Your task to perform on an android device: Open Reddit.com Image 0: 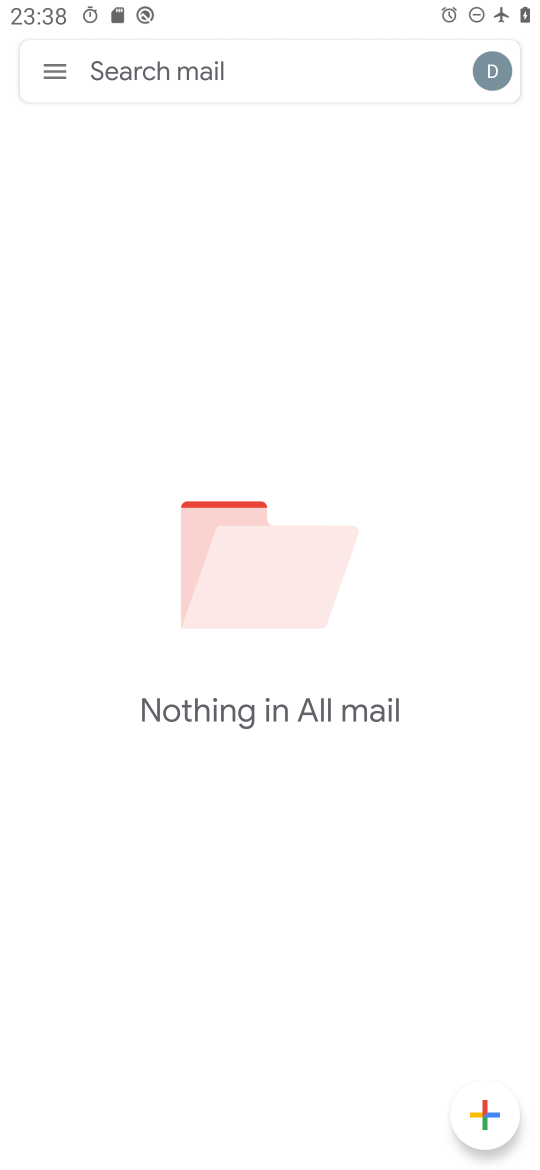
Step 0: press home button
Your task to perform on an android device: Open Reddit.com Image 1: 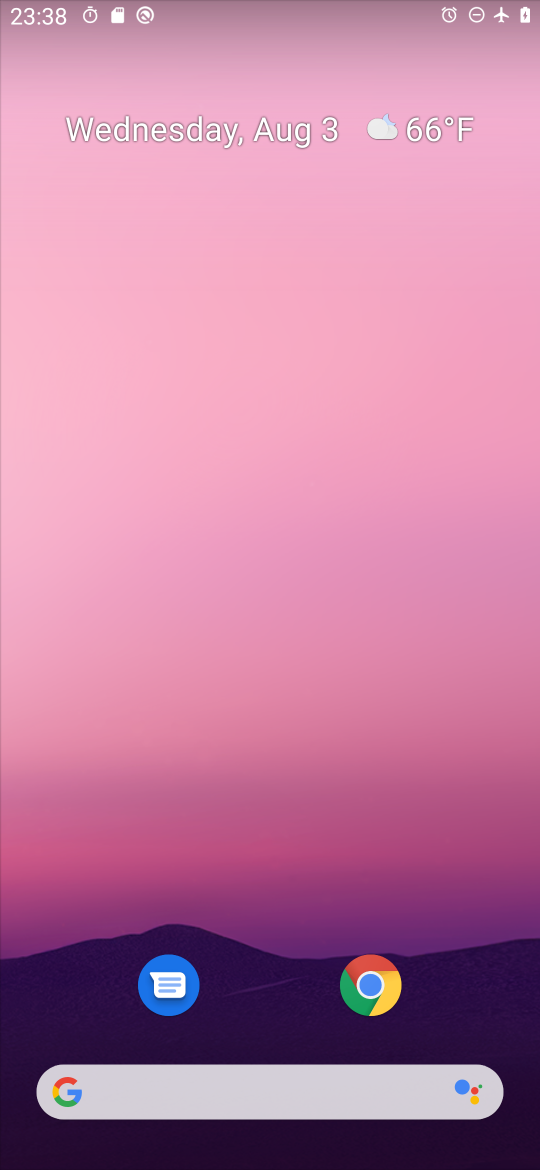
Step 1: click (372, 976)
Your task to perform on an android device: Open Reddit.com Image 2: 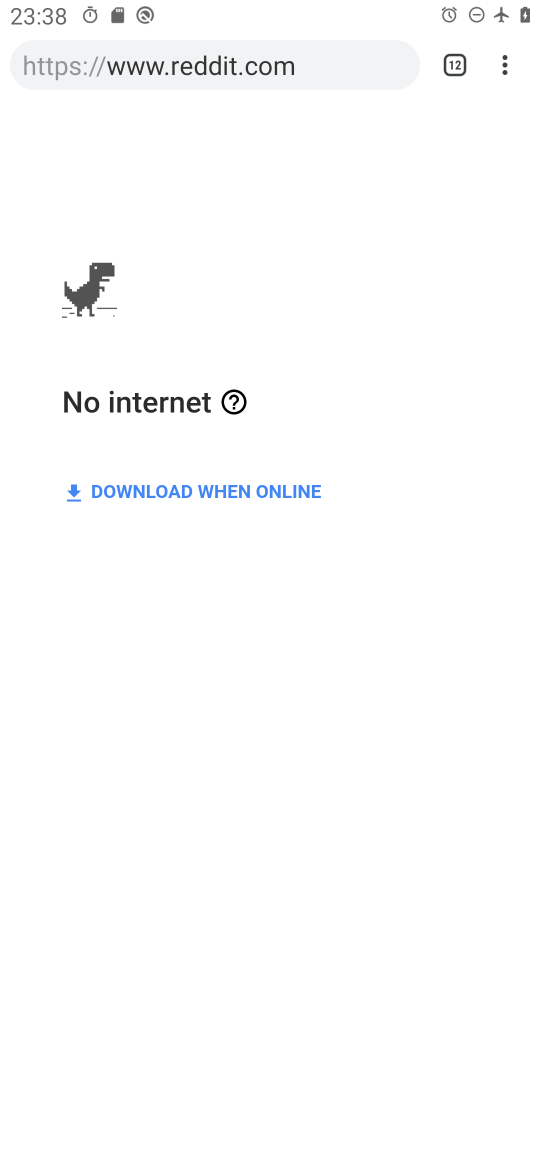
Step 2: task complete